Your task to perform on an android device: Go to privacy settings Image 0: 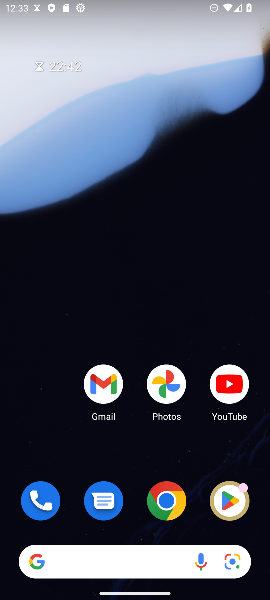
Step 0: drag from (118, 500) to (121, 165)
Your task to perform on an android device: Go to privacy settings Image 1: 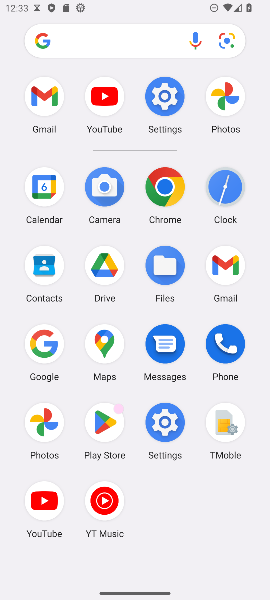
Step 1: click (162, 429)
Your task to perform on an android device: Go to privacy settings Image 2: 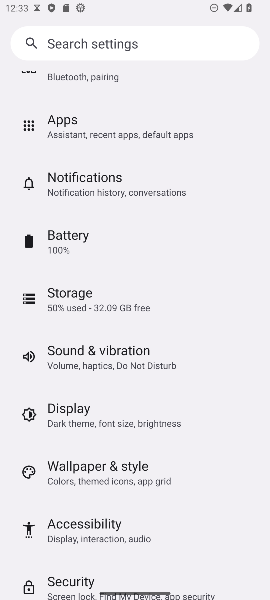
Step 2: drag from (121, 466) to (132, 222)
Your task to perform on an android device: Go to privacy settings Image 3: 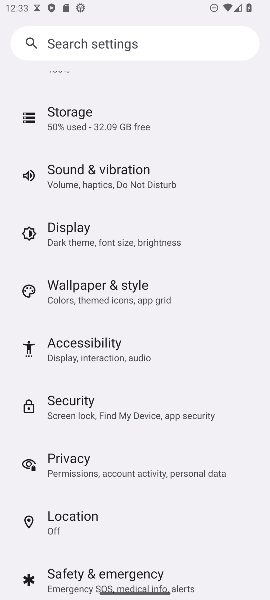
Step 3: click (73, 469)
Your task to perform on an android device: Go to privacy settings Image 4: 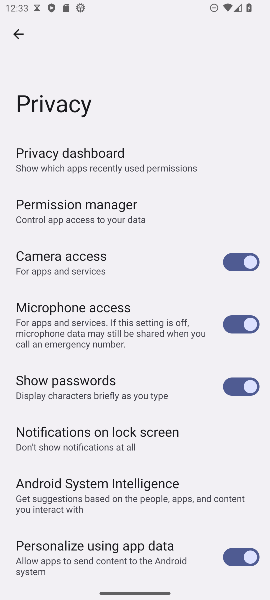
Step 4: task complete